Your task to perform on an android device: What is the news today? Image 0: 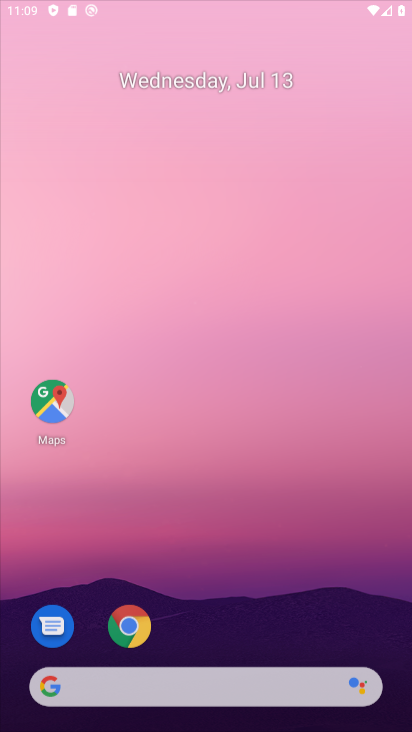
Step 0: click (312, 397)
Your task to perform on an android device: What is the news today? Image 1: 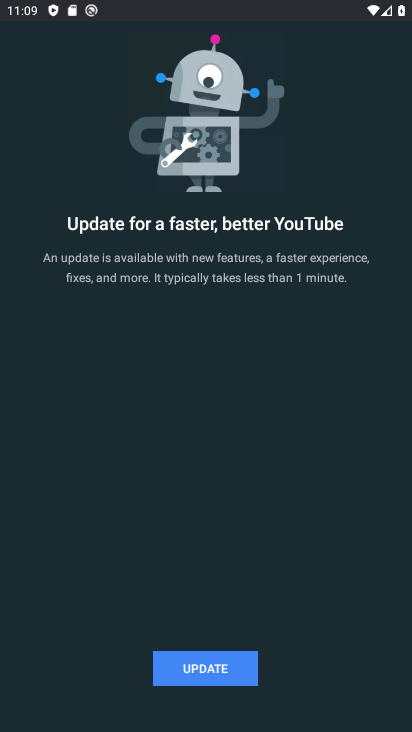
Step 1: task complete